Your task to perform on an android device: set the stopwatch Image 0: 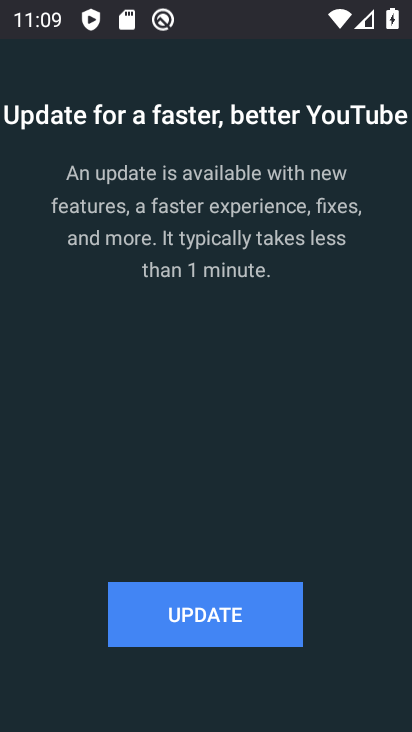
Step 0: press home button
Your task to perform on an android device: set the stopwatch Image 1: 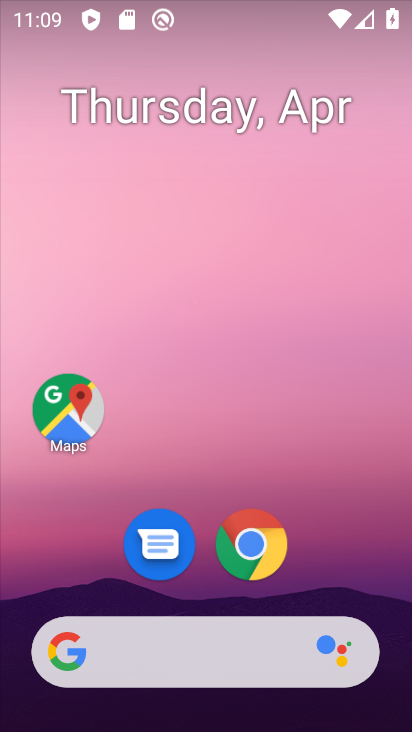
Step 1: drag from (74, 599) to (246, 218)
Your task to perform on an android device: set the stopwatch Image 2: 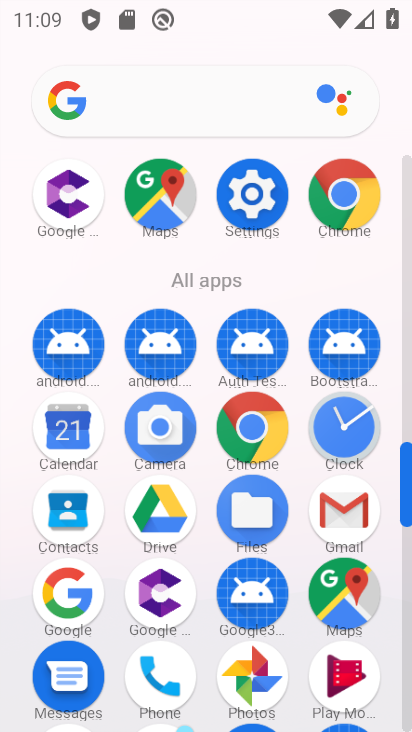
Step 2: click (347, 389)
Your task to perform on an android device: set the stopwatch Image 3: 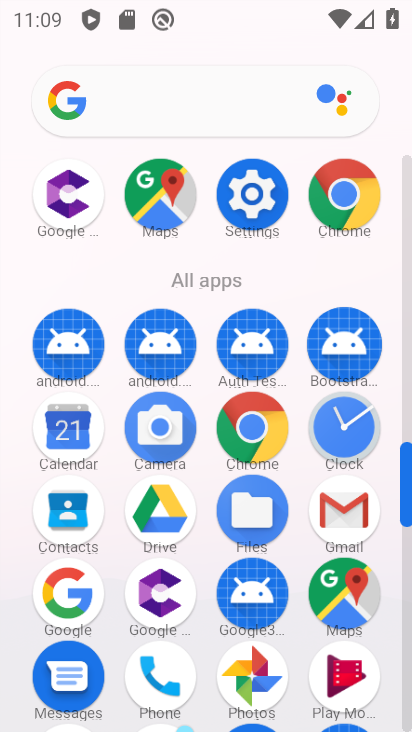
Step 3: click (336, 426)
Your task to perform on an android device: set the stopwatch Image 4: 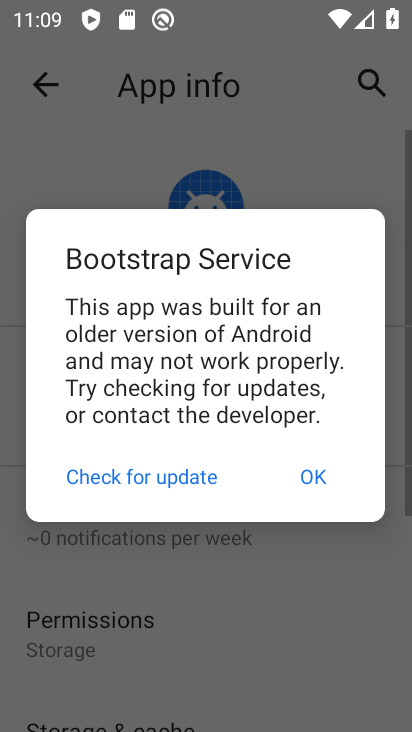
Step 4: click (315, 471)
Your task to perform on an android device: set the stopwatch Image 5: 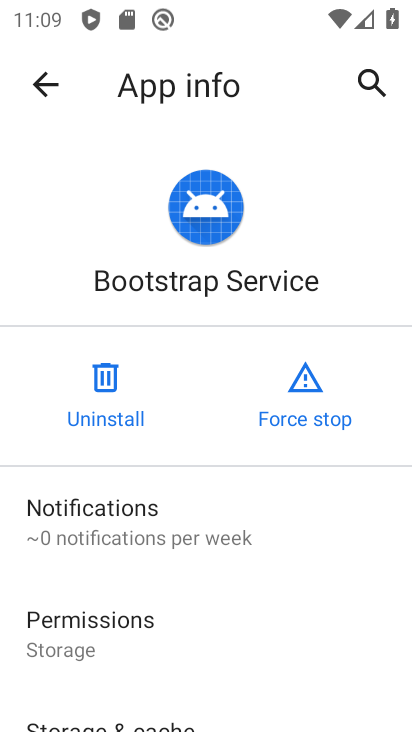
Step 5: press home button
Your task to perform on an android device: set the stopwatch Image 6: 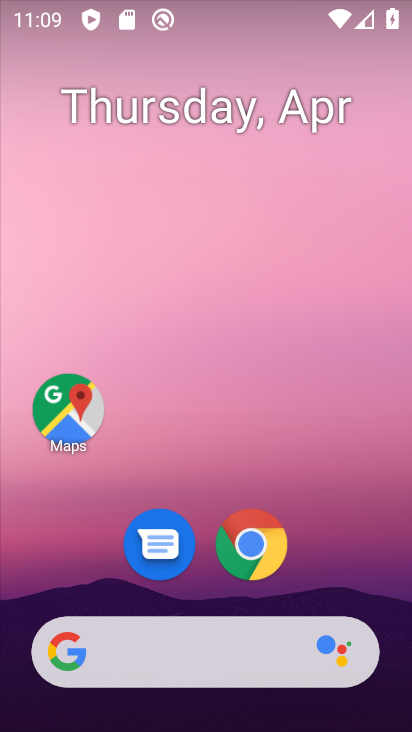
Step 6: drag from (34, 649) to (356, 152)
Your task to perform on an android device: set the stopwatch Image 7: 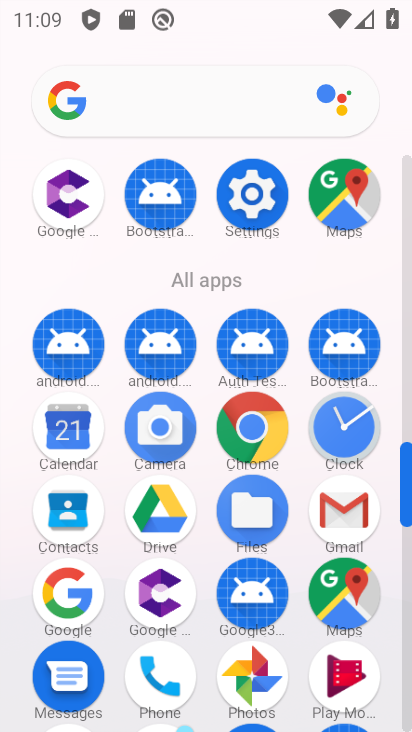
Step 7: click (354, 426)
Your task to perform on an android device: set the stopwatch Image 8: 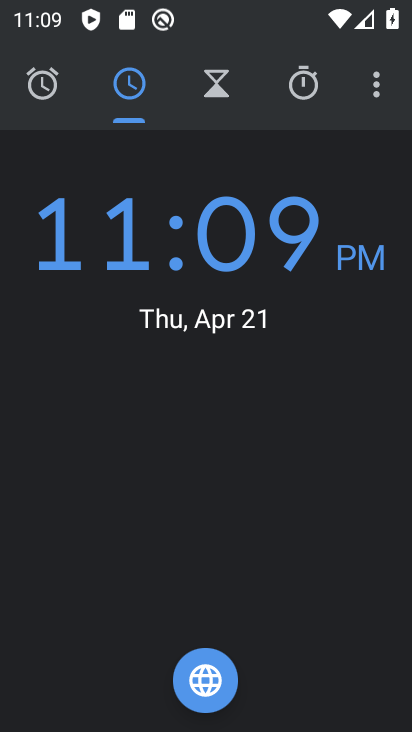
Step 8: click (289, 87)
Your task to perform on an android device: set the stopwatch Image 9: 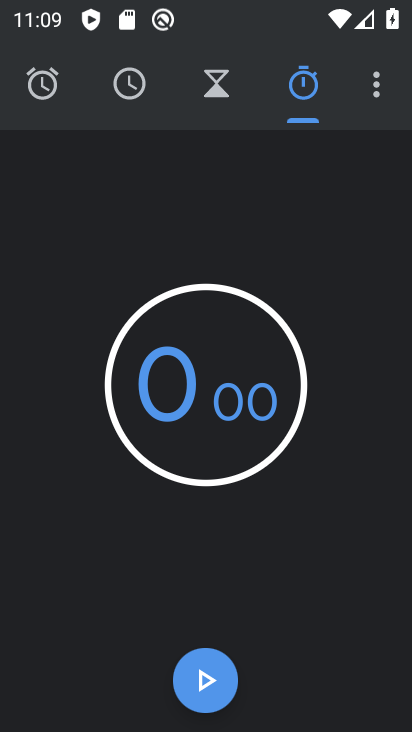
Step 9: click (202, 679)
Your task to perform on an android device: set the stopwatch Image 10: 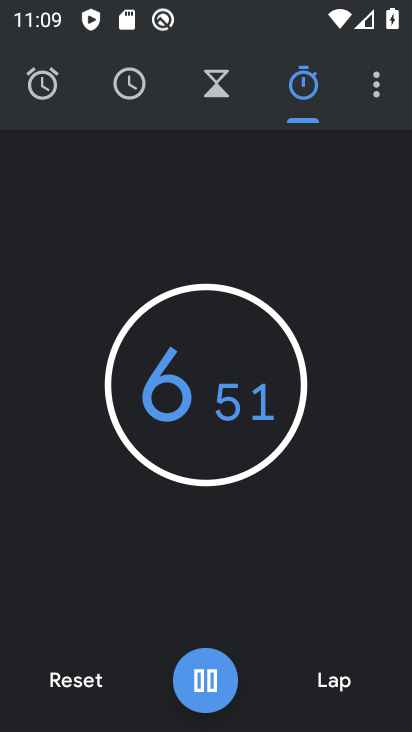
Step 10: task complete